Your task to perform on an android device: Open Maps and search for coffee Image 0: 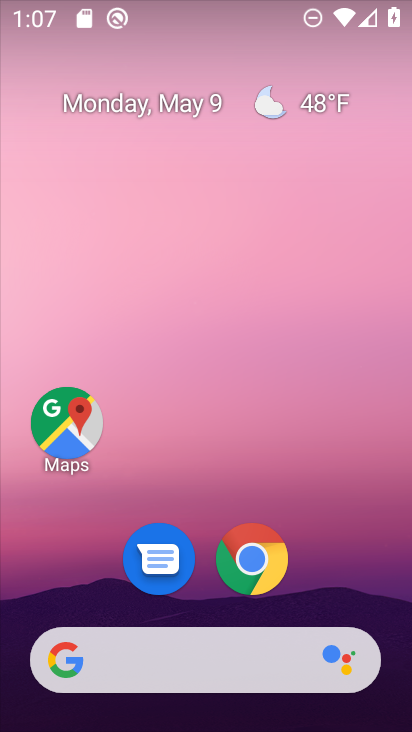
Step 0: click (342, 192)
Your task to perform on an android device: Open Maps and search for coffee Image 1: 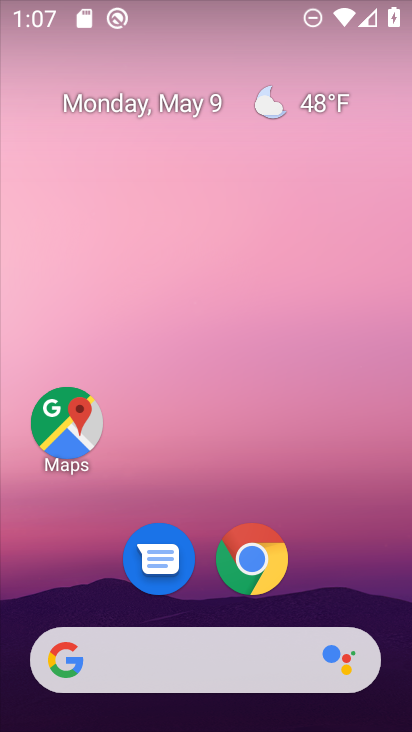
Step 1: drag from (195, 600) to (265, 221)
Your task to perform on an android device: Open Maps and search for coffee Image 2: 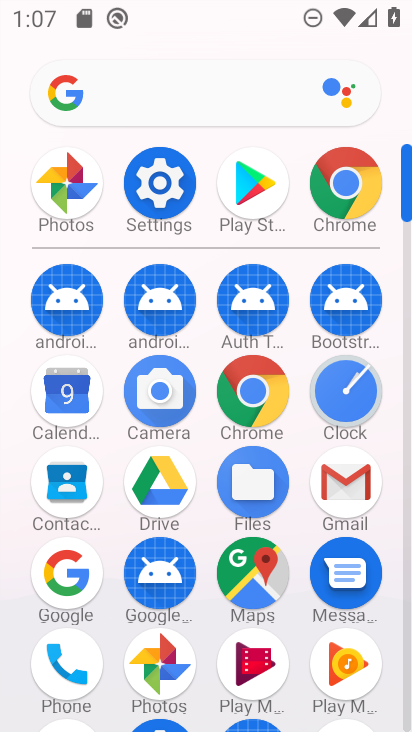
Step 2: click (250, 577)
Your task to perform on an android device: Open Maps and search for coffee Image 3: 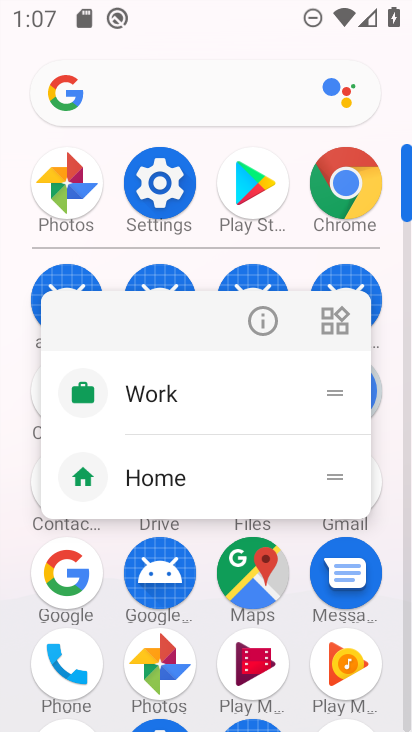
Step 3: click (265, 322)
Your task to perform on an android device: Open Maps and search for coffee Image 4: 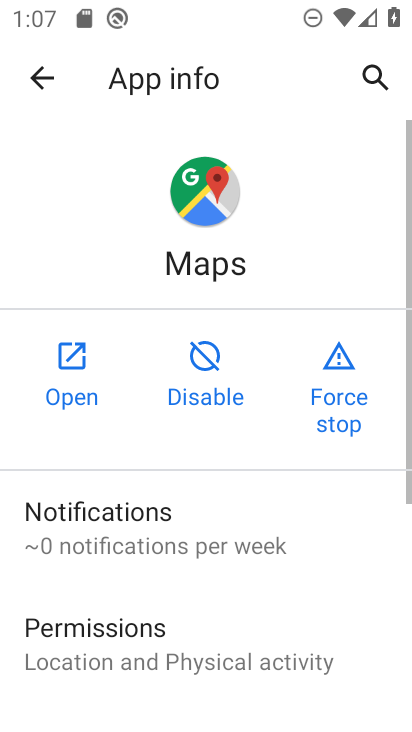
Step 4: click (84, 386)
Your task to perform on an android device: Open Maps and search for coffee Image 5: 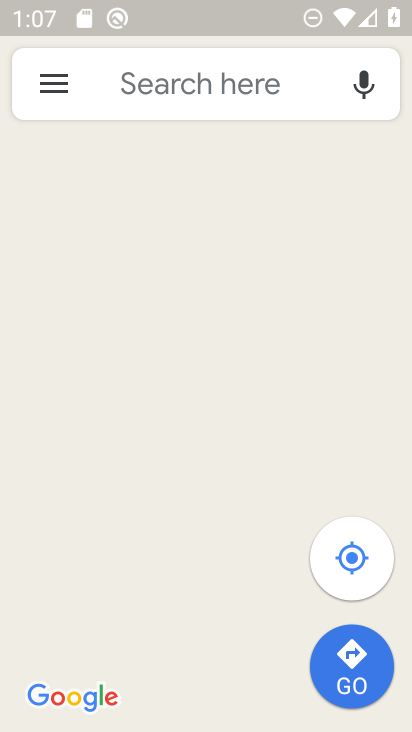
Step 5: click (196, 82)
Your task to perform on an android device: Open Maps and search for coffee Image 6: 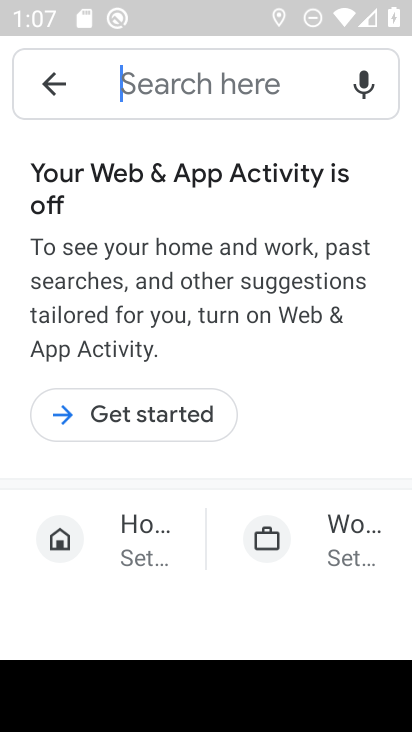
Step 6: type "coffee"
Your task to perform on an android device: Open Maps and search for coffee Image 7: 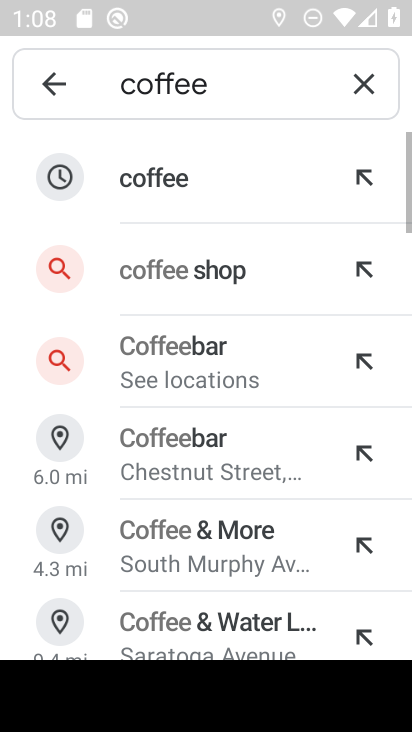
Step 7: click (219, 211)
Your task to perform on an android device: Open Maps and search for coffee Image 8: 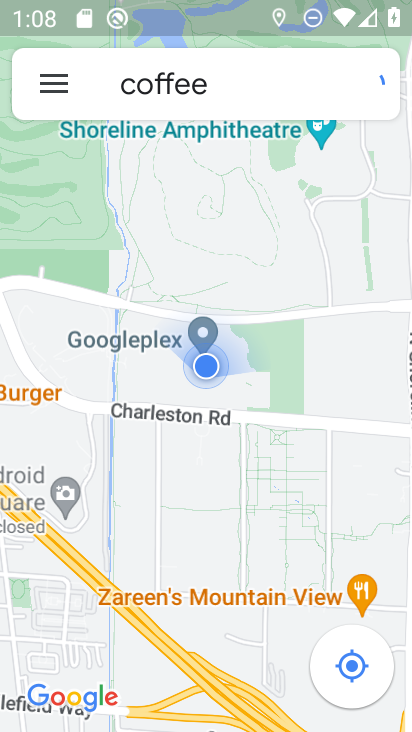
Step 8: task complete